Your task to perform on an android device: check data usage Image 0: 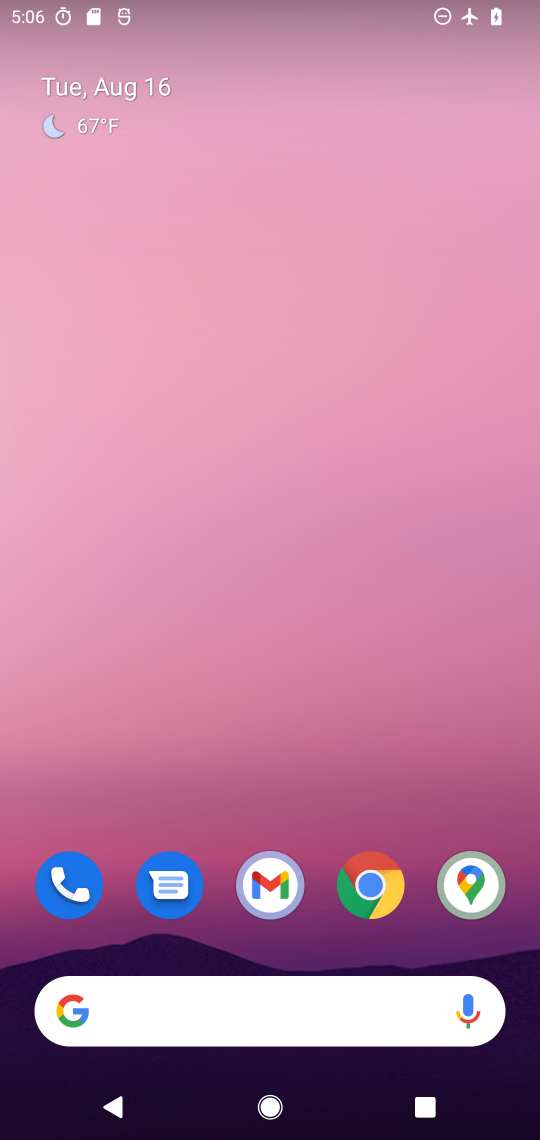
Step 0: drag from (287, 944) to (269, 296)
Your task to perform on an android device: check data usage Image 1: 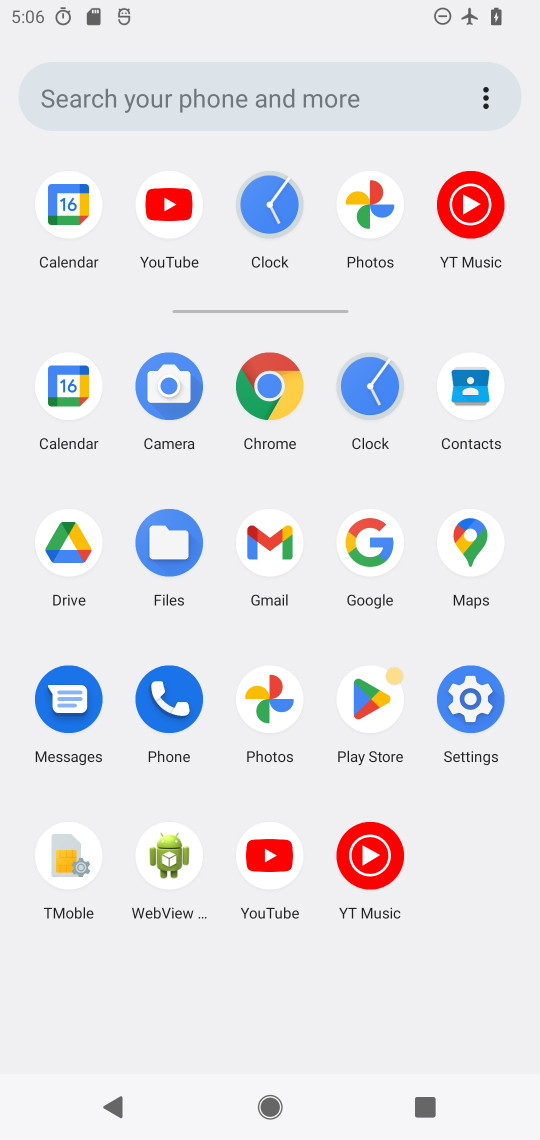
Step 1: click (482, 675)
Your task to perform on an android device: check data usage Image 2: 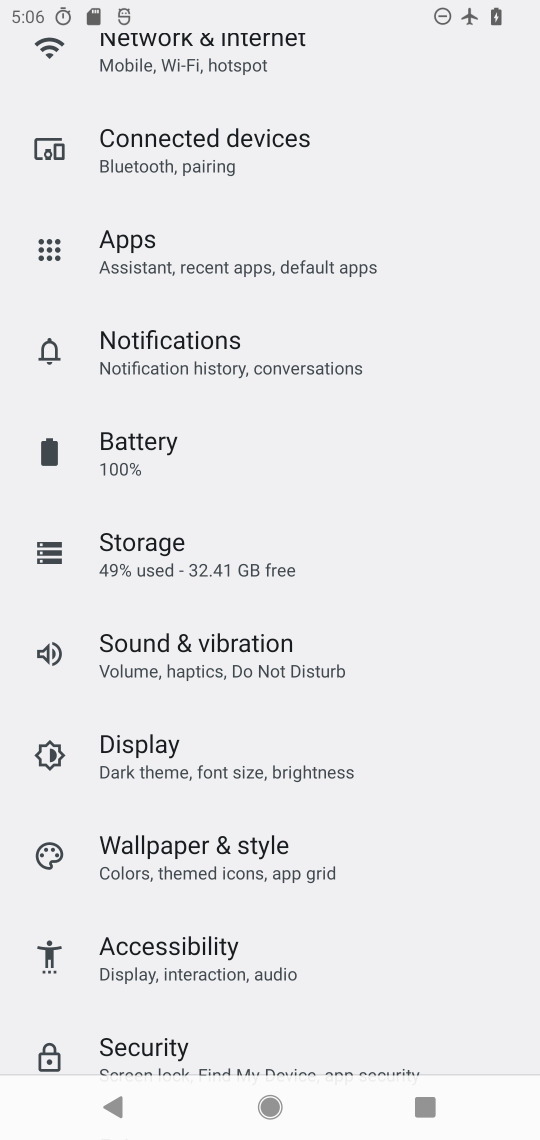
Step 2: click (263, 52)
Your task to perform on an android device: check data usage Image 3: 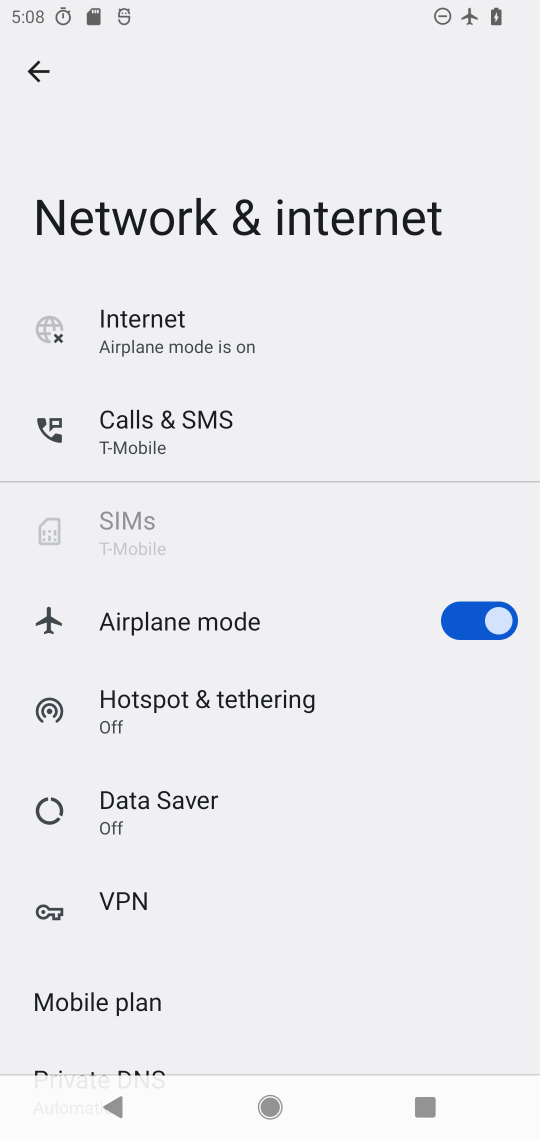
Step 3: task complete